Your task to perform on an android device: delete browsing data in the chrome app Image 0: 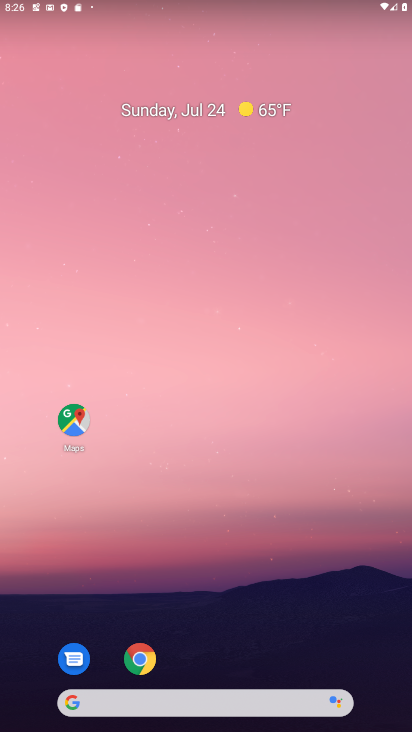
Step 0: click (138, 660)
Your task to perform on an android device: delete browsing data in the chrome app Image 1: 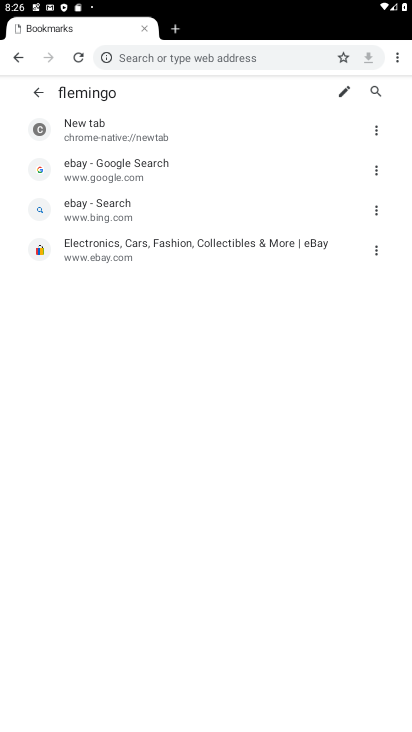
Step 1: click (397, 57)
Your task to perform on an android device: delete browsing data in the chrome app Image 2: 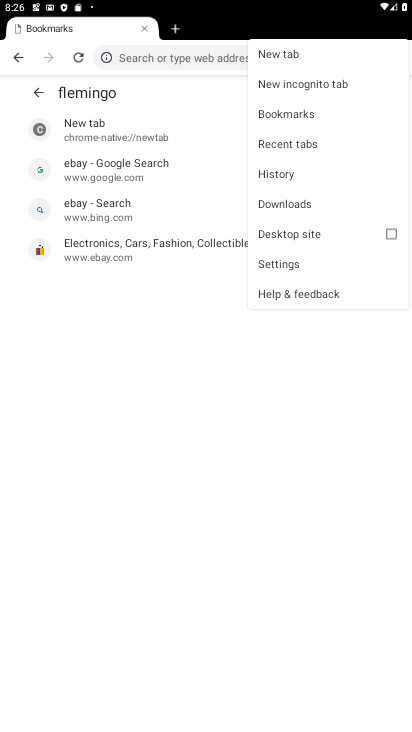
Step 2: click (270, 263)
Your task to perform on an android device: delete browsing data in the chrome app Image 3: 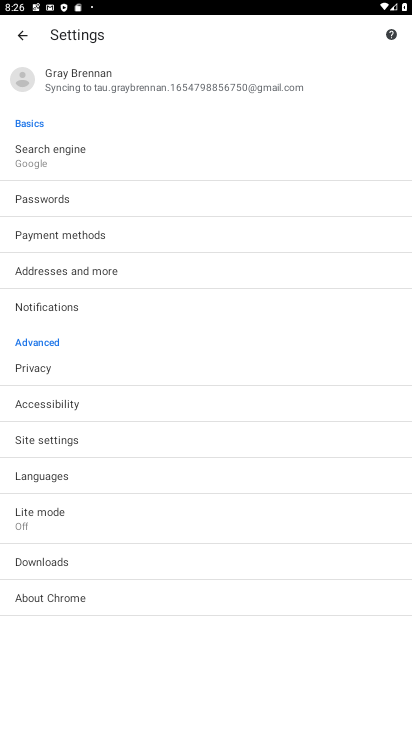
Step 3: click (31, 368)
Your task to perform on an android device: delete browsing data in the chrome app Image 4: 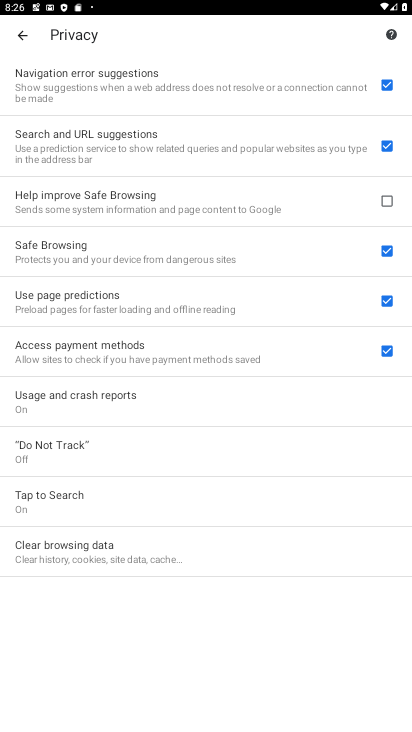
Step 4: click (61, 550)
Your task to perform on an android device: delete browsing data in the chrome app Image 5: 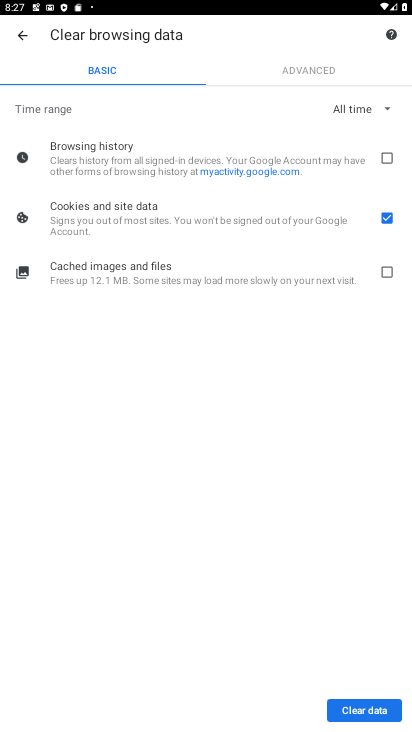
Step 5: click (385, 223)
Your task to perform on an android device: delete browsing data in the chrome app Image 6: 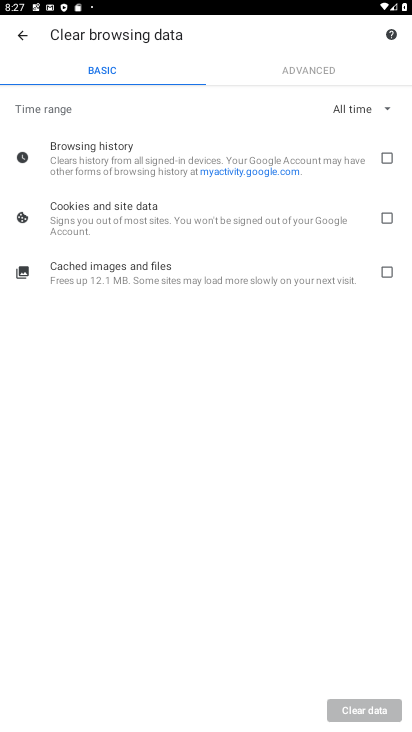
Step 6: click (387, 158)
Your task to perform on an android device: delete browsing data in the chrome app Image 7: 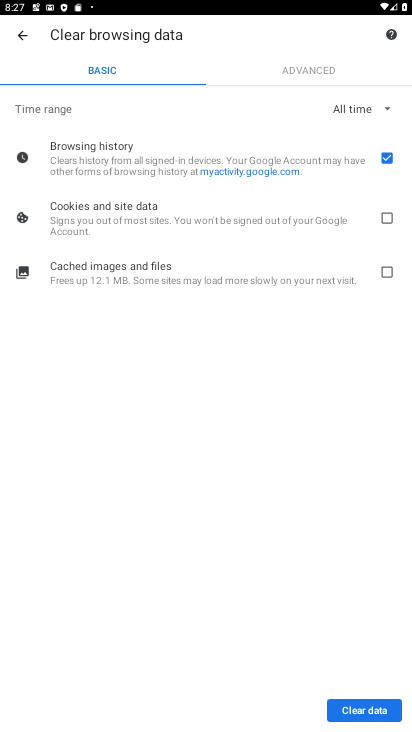
Step 7: click (377, 707)
Your task to perform on an android device: delete browsing data in the chrome app Image 8: 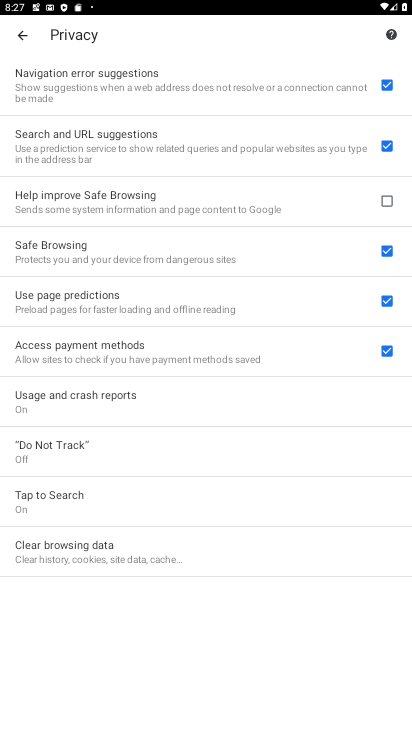
Step 8: task complete